Your task to perform on an android device: change the clock display to show seconds Image 0: 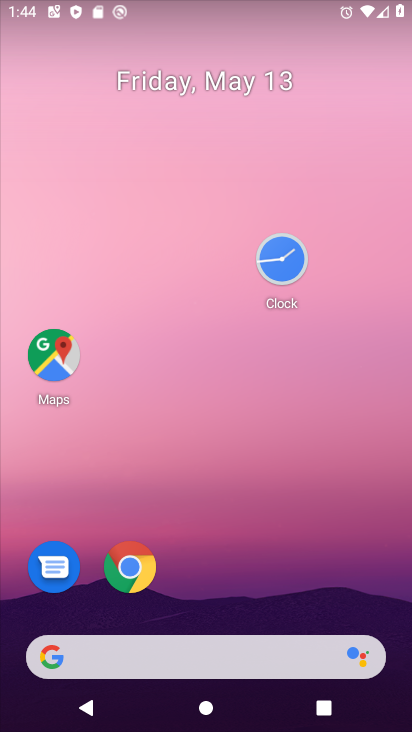
Step 0: drag from (290, 605) to (267, 108)
Your task to perform on an android device: change the clock display to show seconds Image 1: 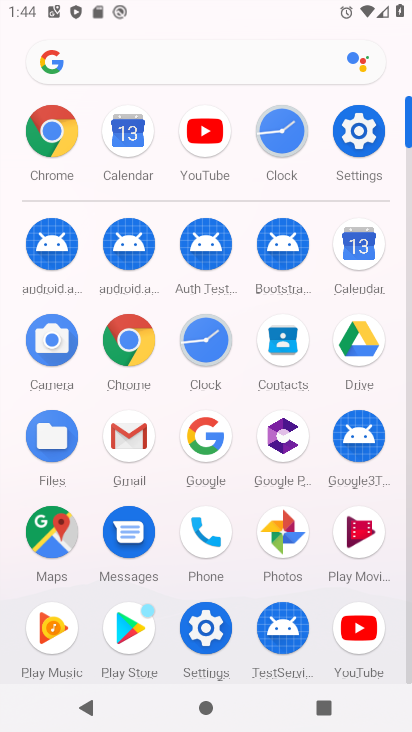
Step 1: click (336, 166)
Your task to perform on an android device: change the clock display to show seconds Image 2: 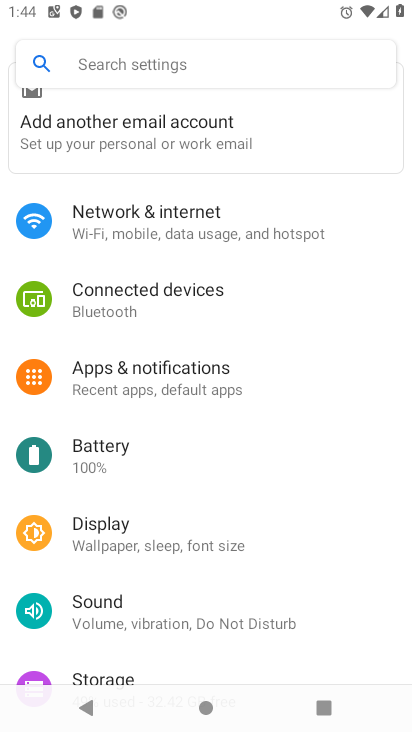
Step 2: press home button
Your task to perform on an android device: change the clock display to show seconds Image 3: 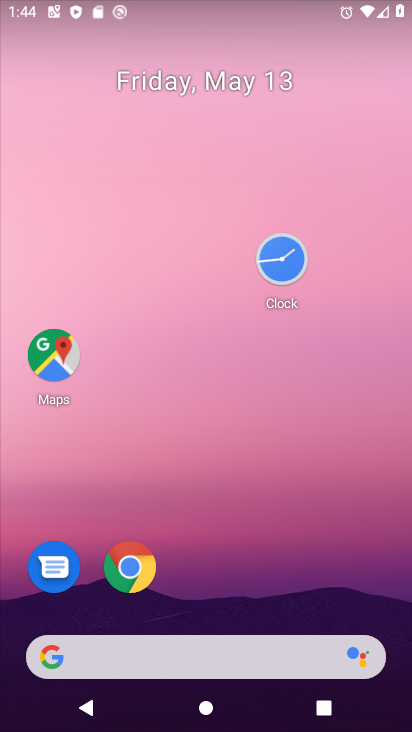
Step 3: click (275, 283)
Your task to perform on an android device: change the clock display to show seconds Image 4: 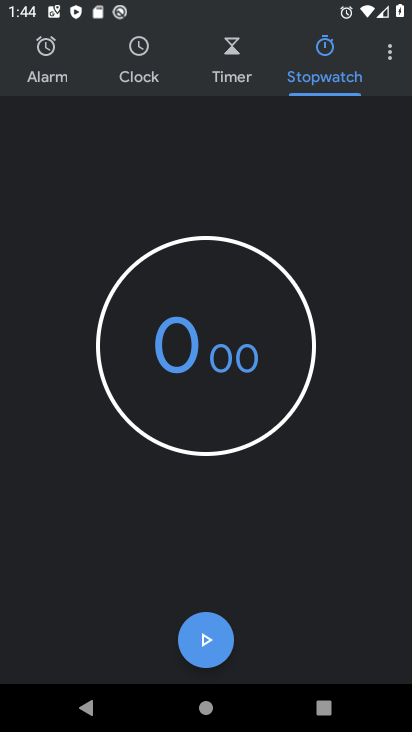
Step 4: click (400, 48)
Your task to perform on an android device: change the clock display to show seconds Image 5: 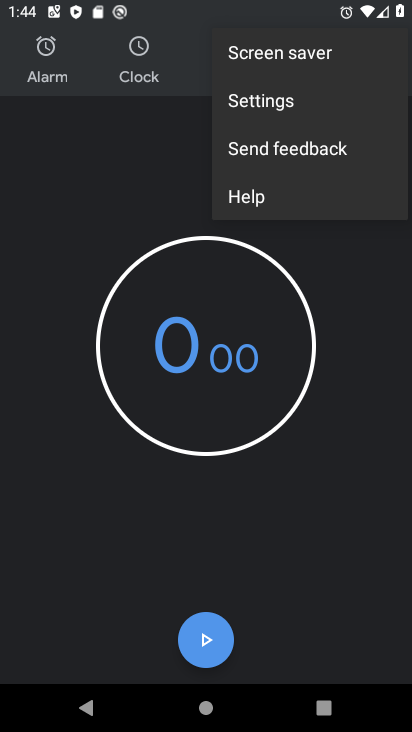
Step 5: click (342, 89)
Your task to perform on an android device: change the clock display to show seconds Image 6: 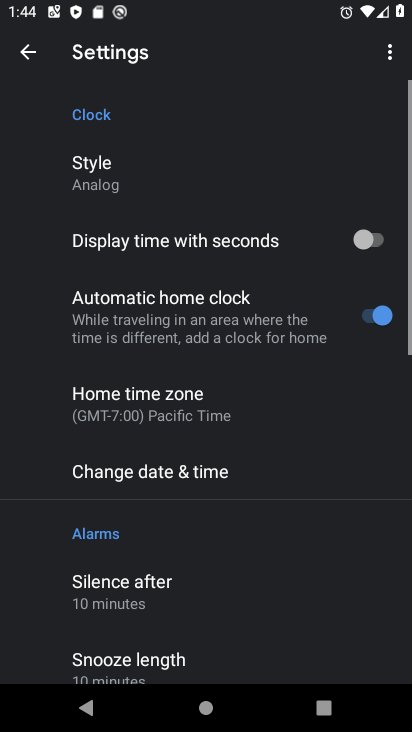
Step 6: click (173, 198)
Your task to perform on an android device: change the clock display to show seconds Image 7: 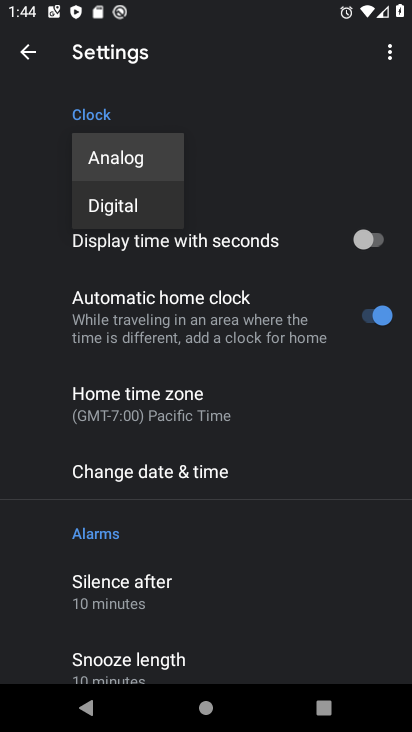
Step 7: click (346, 250)
Your task to perform on an android device: change the clock display to show seconds Image 8: 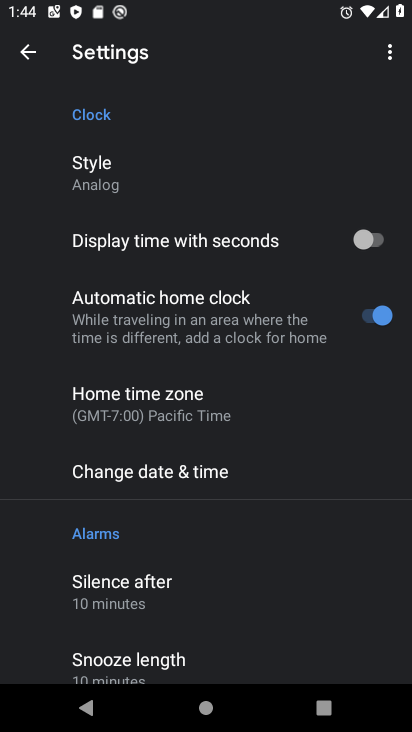
Step 8: click (371, 247)
Your task to perform on an android device: change the clock display to show seconds Image 9: 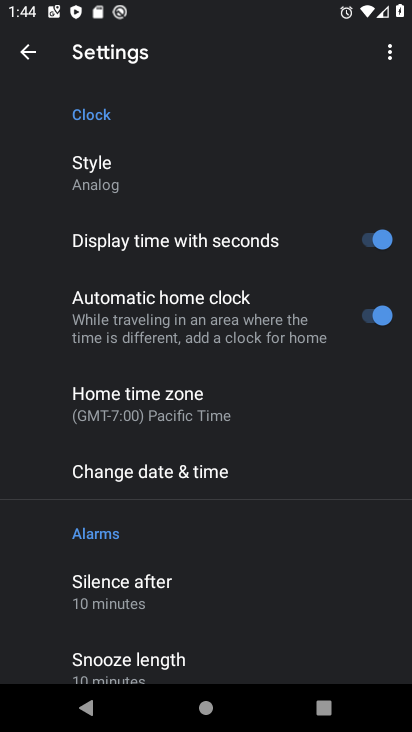
Step 9: task complete